Your task to perform on an android device: see sites visited before in the chrome app Image 0: 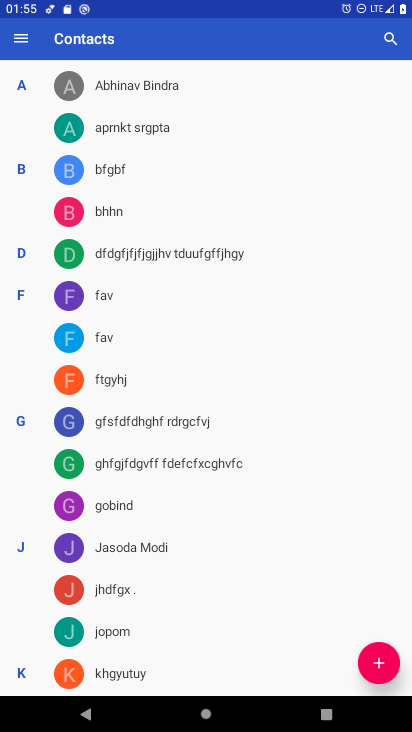
Step 0: press home button
Your task to perform on an android device: see sites visited before in the chrome app Image 1: 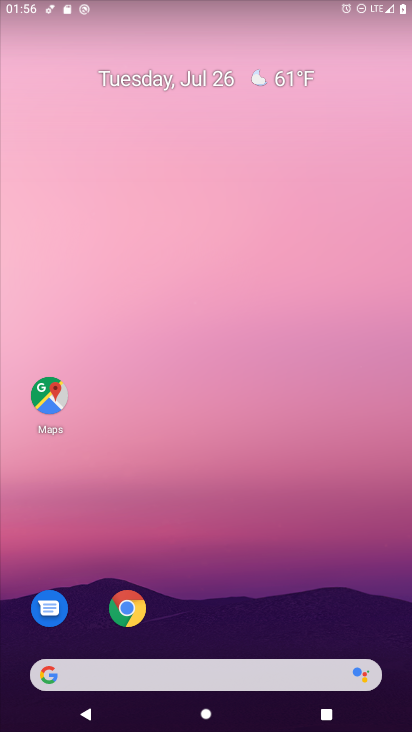
Step 1: click (130, 610)
Your task to perform on an android device: see sites visited before in the chrome app Image 2: 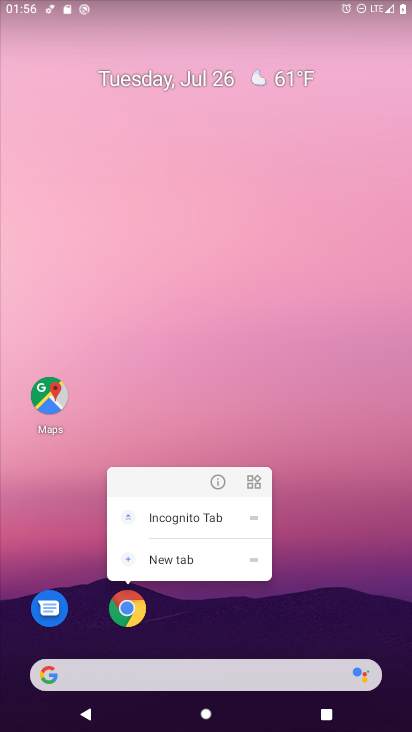
Step 2: click (119, 600)
Your task to perform on an android device: see sites visited before in the chrome app Image 3: 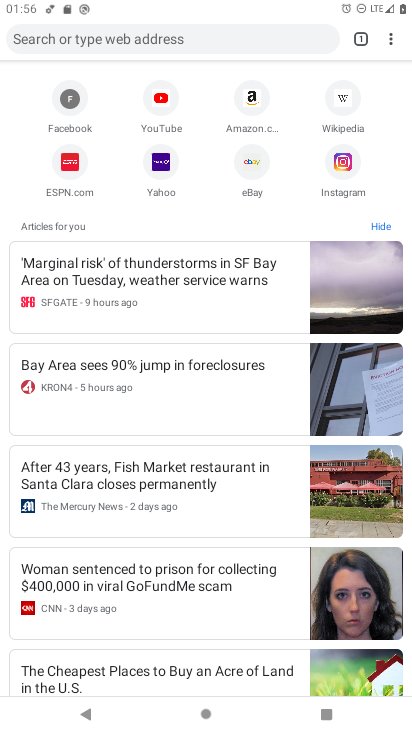
Step 3: click (388, 44)
Your task to perform on an android device: see sites visited before in the chrome app Image 4: 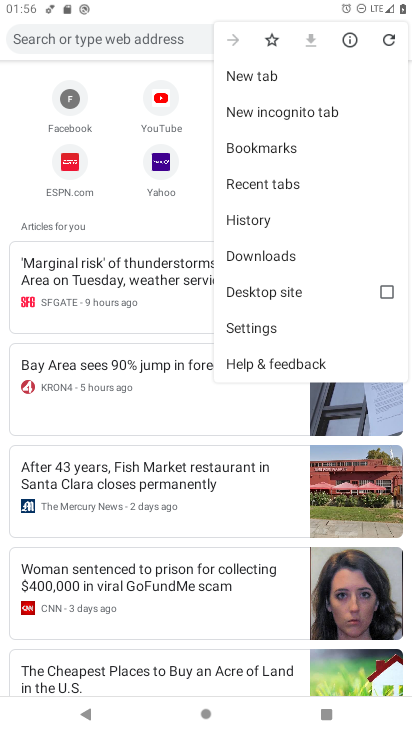
Step 4: click (386, 35)
Your task to perform on an android device: see sites visited before in the chrome app Image 5: 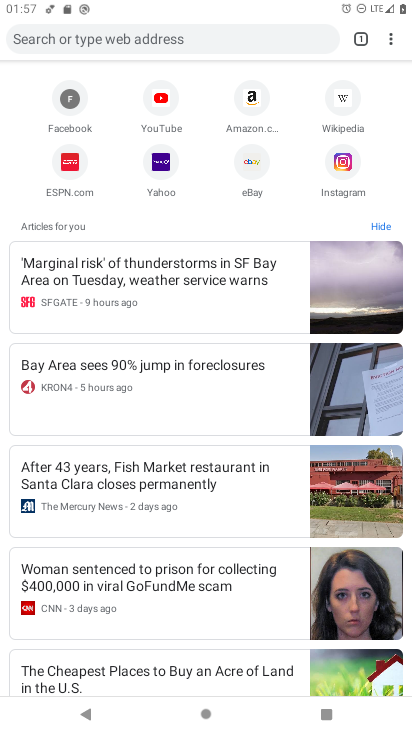
Step 5: task complete